Your task to perform on an android device: turn on improve location accuracy Image 0: 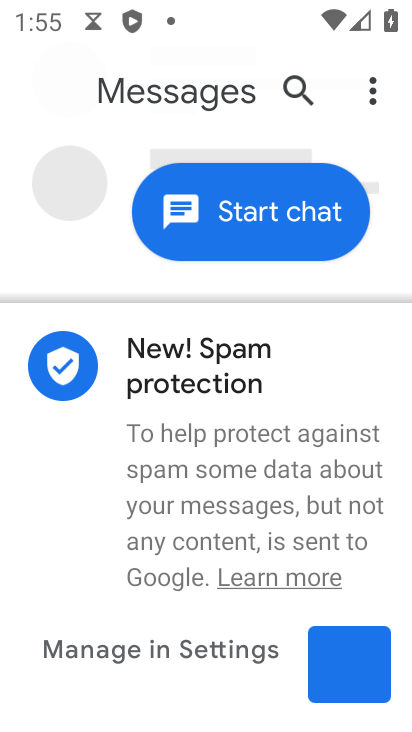
Step 0: press back button
Your task to perform on an android device: turn on improve location accuracy Image 1: 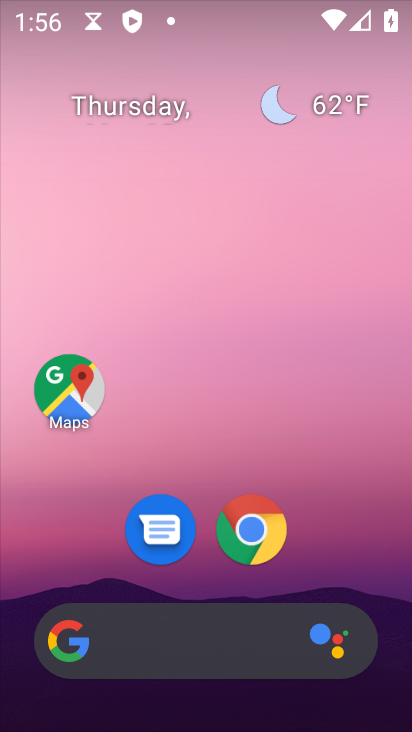
Step 1: drag from (327, 535) to (281, 74)
Your task to perform on an android device: turn on improve location accuracy Image 2: 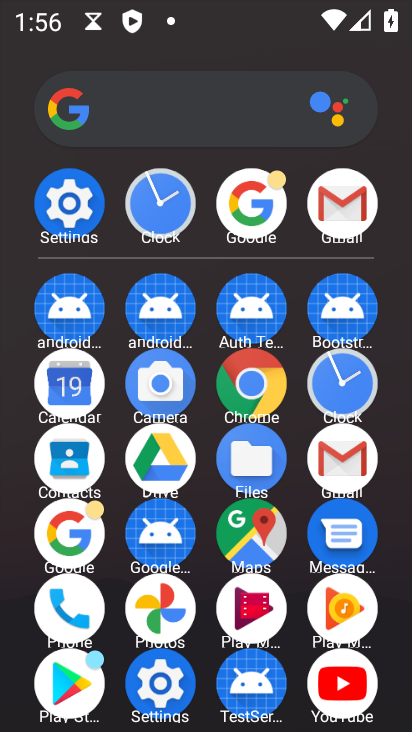
Step 2: click (70, 201)
Your task to perform on an android device: turn on improve location accuracy Image 3: 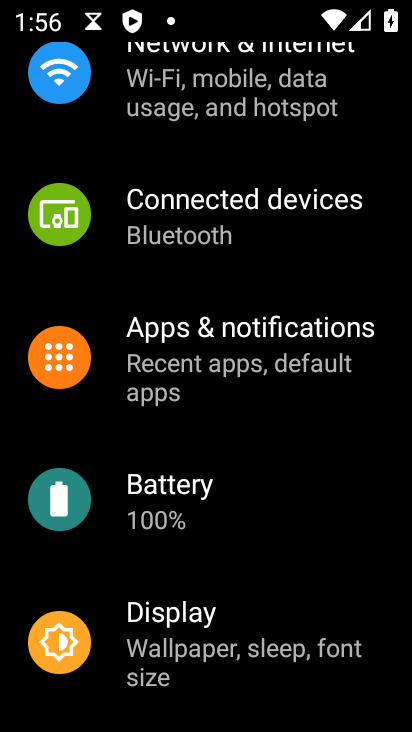
Step 3: drag from (187, 439) to (243, 290)
Your task to perform on an android device: turn on improve location accuracy Image 4: 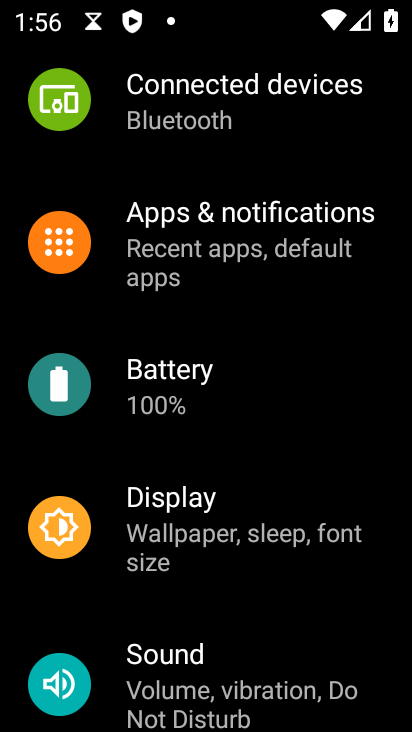
Step 4: drag from (185, 407) to (193, 293)
Your task to perform on an android device: turn on improve location accuracy Image 5: 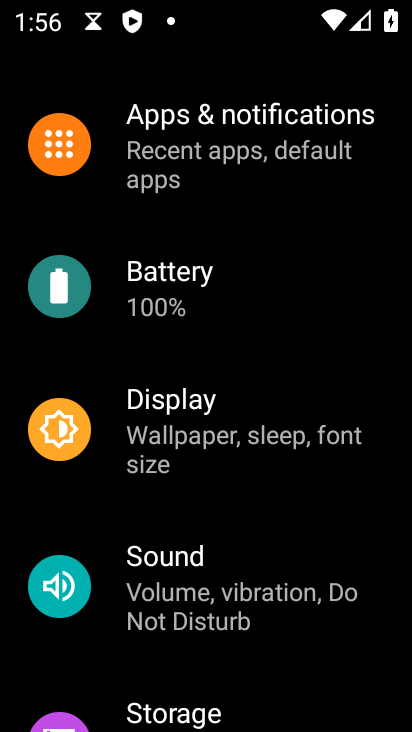
Step 5: drag from (195, 470) to (220, 333)
Your task to perform on an android device: turn on improve location accuracy Image 6: 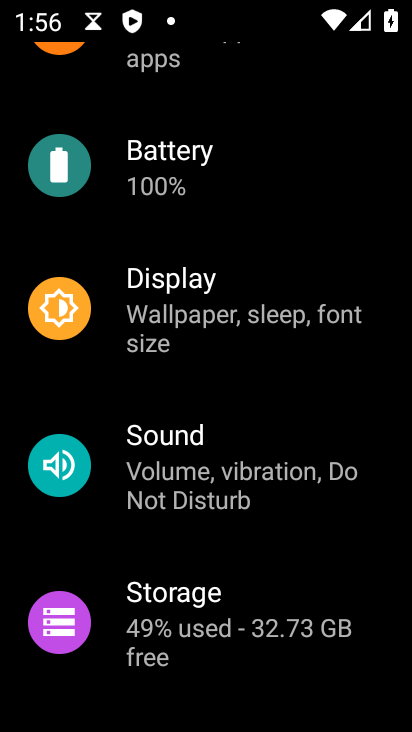
Step 6: drag from (244, 409) to (238, 248)
Your task to perform on an android device: turn on improve location accuracy Image 7: 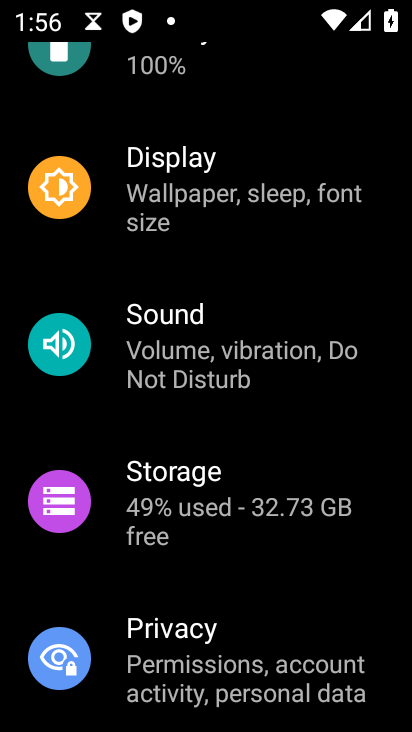
Step 7: drag from (208, 427) to (236, 316)
Your task to perform on an android device: turn on improve location accuracy Image 8: 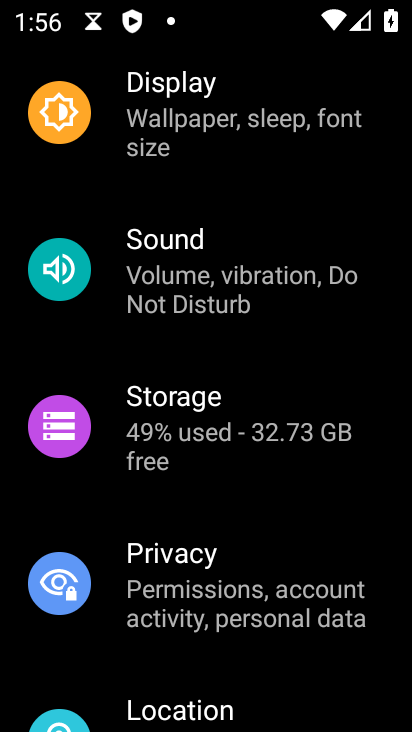
Step 8: drag from (237, 516) to (261, 367)
Your task to perform on an android device: turn on improve location accuracy Image 9: 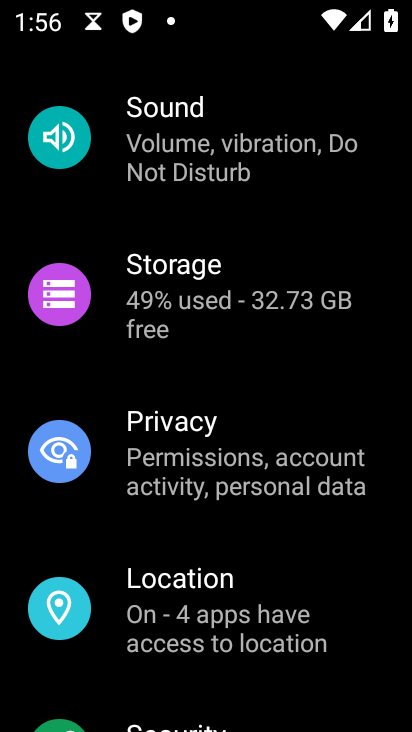
Step 9: click (204, 584)
Your task to perform on an android device: turn on improve location accuracy Image 10: 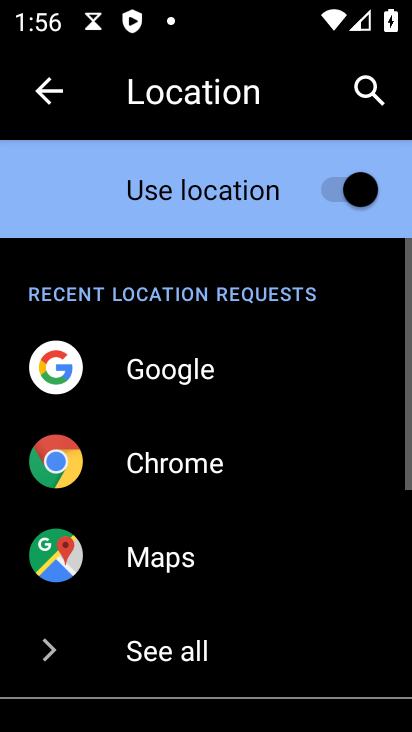
Step 10: drag from (236, 627) to (295, 506)
Your task to perform on an android device: turn on improve location accuracy Image 11: 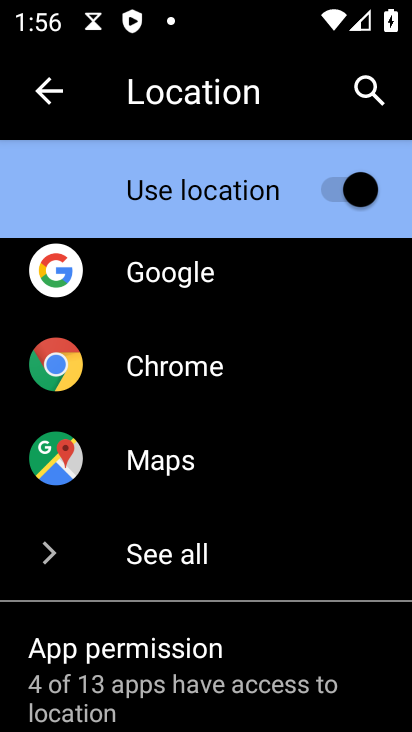
Step 11: drag from (281, 637) to (344, 537)
Your task to perform on an android device: turn on improve location accuracy Image 12: 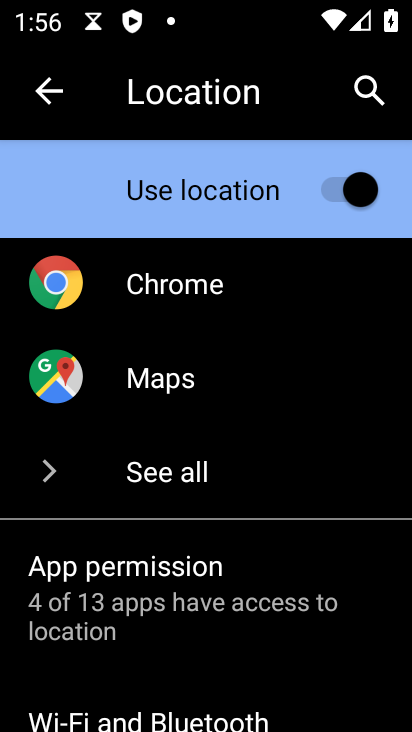
Step 12: drag from (209, 669) to (281, 491)
Your task to perform on an android device: turn on improve location accuracy Image 13: 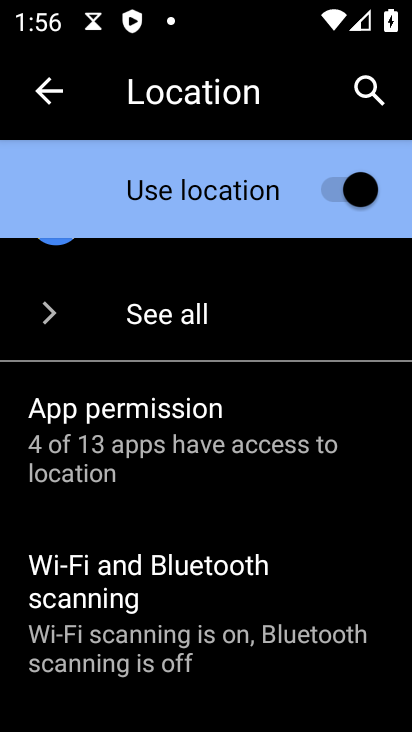
Step 13: drag from (232, 665) to (301, 529)
Your task to perform on an android device: turn on improve location accuracy Image 14: 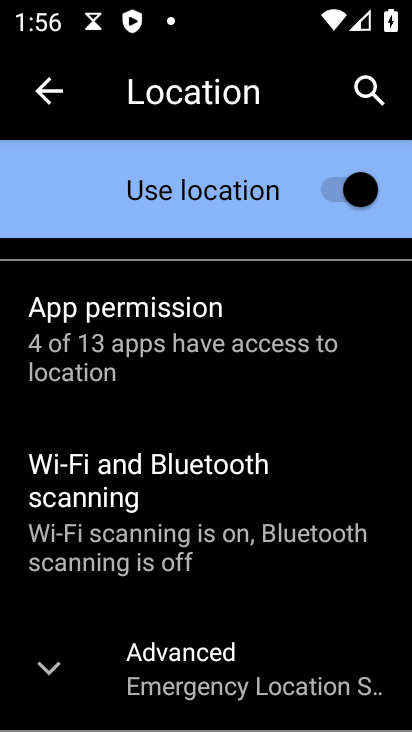
Step 14: drag from (299, 635) to (338, 448)
Your task to perform on an android device: turn on improve location accuracy Image 15: 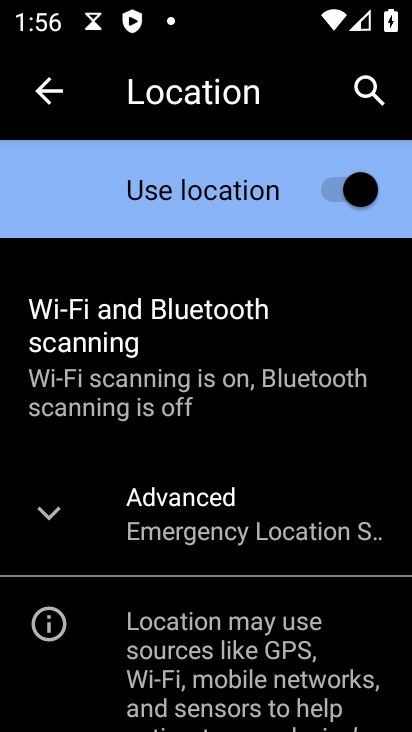
Step 15: drag from (220, 595) to (296, 455)
Your task to perform on an android device: turn on improve location accuracy Image 16: 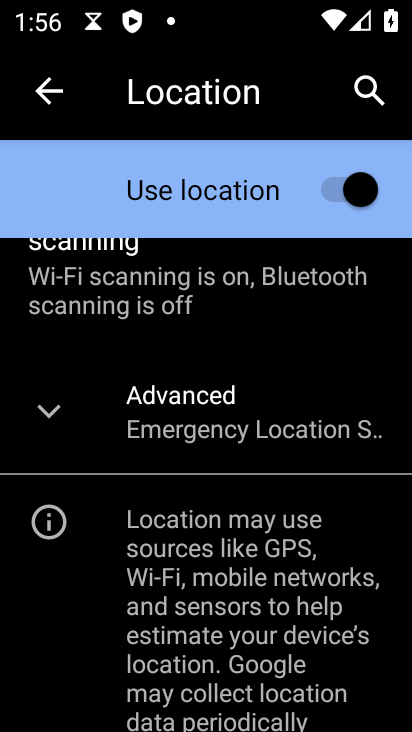
Step 16: click (238, 428)
Your task to perform on an android device: turn on improve location accuracy Image 17: 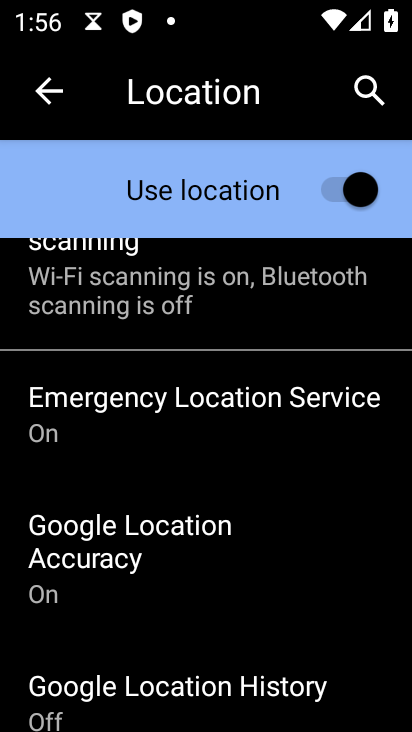
Step 17: click (141, 543)
Your task to perform on an android device: turn on improve location accuracy Image 18: 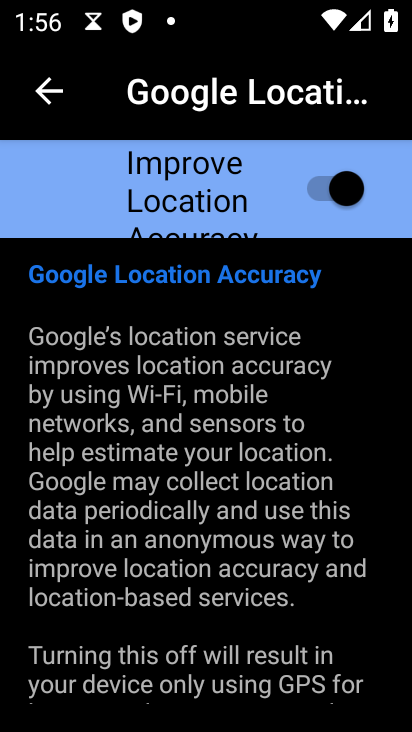
Step 18: task complete